Your task to perform on an android device: toggle data saver in the chrome app Image 0: 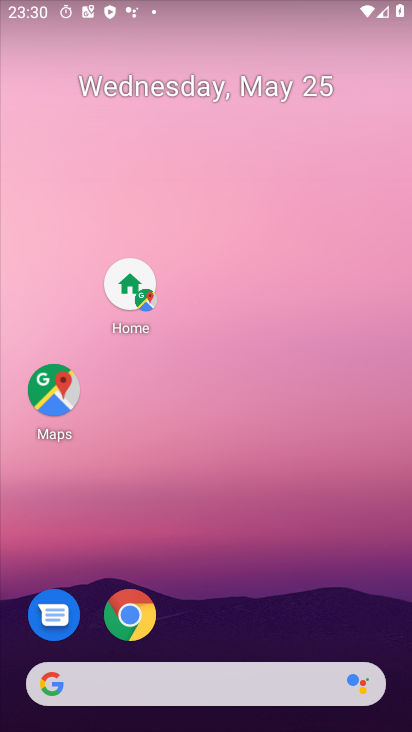
Step 0: press home button
Your task to perform on an android device: toggle data saver in the chrome app Image 1: 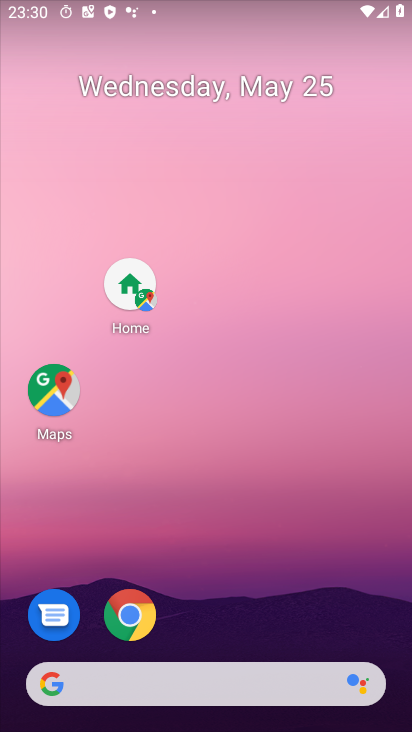
Step 1: click (135, 635)
Your task to perform on an android device: toggle data saver in the chrome app Image 2: 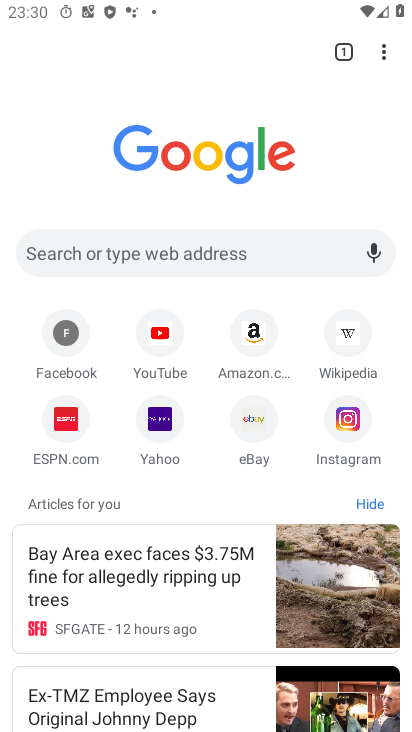
Step 2: drag from (380, 47) to (223, 439)
Your task to perform on an android device: toggle data saver in the chrome app Image 3: 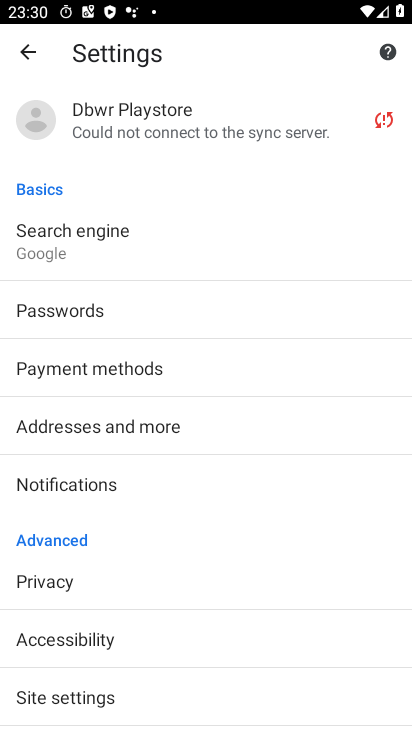
Step 3: drag from (220, 665) to (241, 297)
Your task to perform on an android device: toggle data saver in the chrome app Image 4: 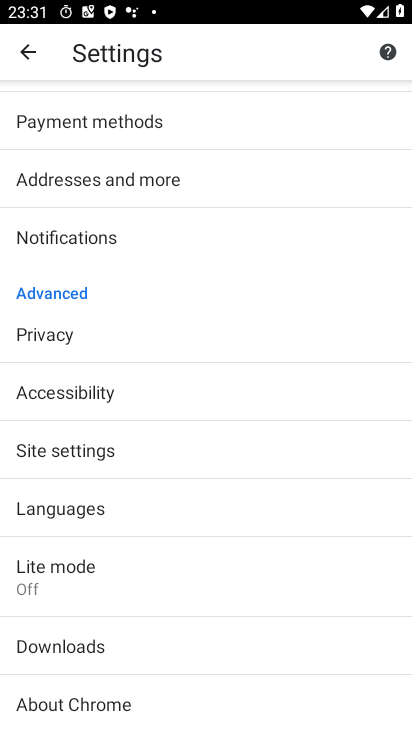
Step 4: click (62, 575)
Your task to perform on an android device: toggle data saver in the chrome app Image 5: 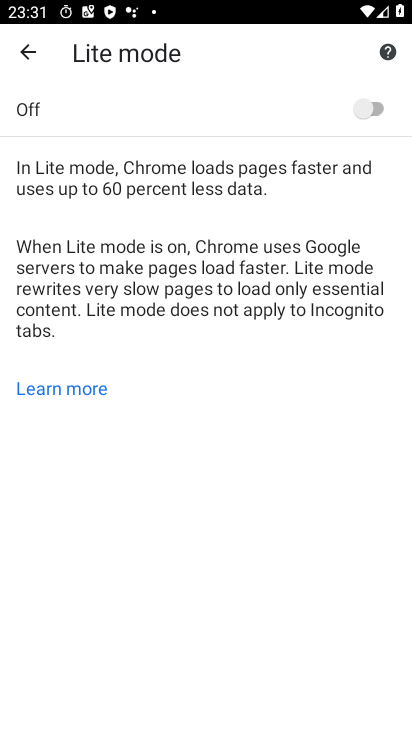
Step 5: click (363, 107)
Your task to perform on an android device: toggle data saver in the chrome app Image 6: 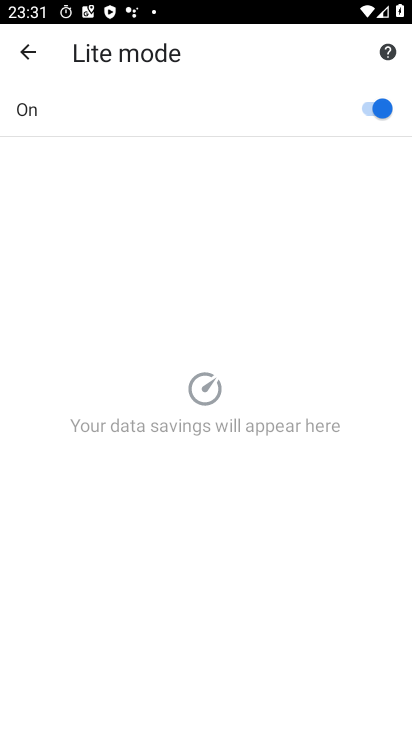
Step 6: task complete